Your task to perform on an android device: Is it going to rain tomorrow? Image 0: 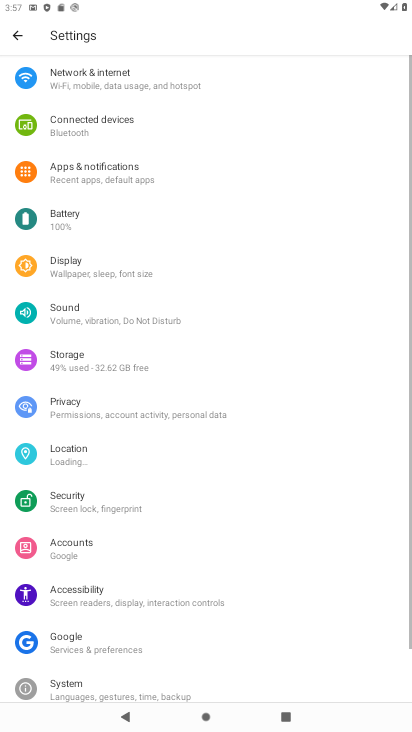
Step 0: press back button
Your task to perform on an android device: Is it going to rain tomorrow? Image 1: 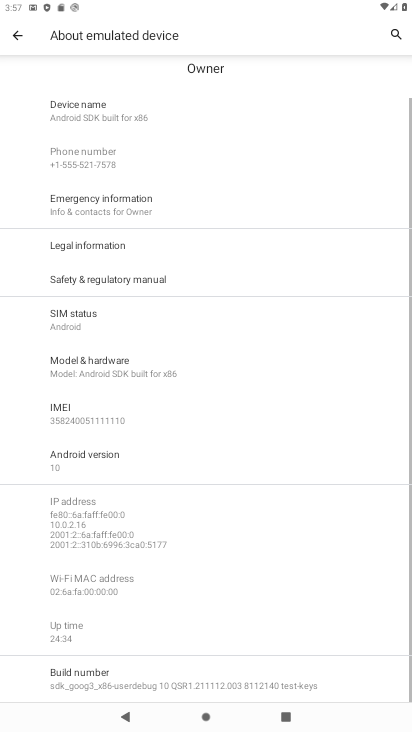
Step 1: click (19, 38)
Your task to perform on an android device: Is it going to rain tomorrow? Image 2: 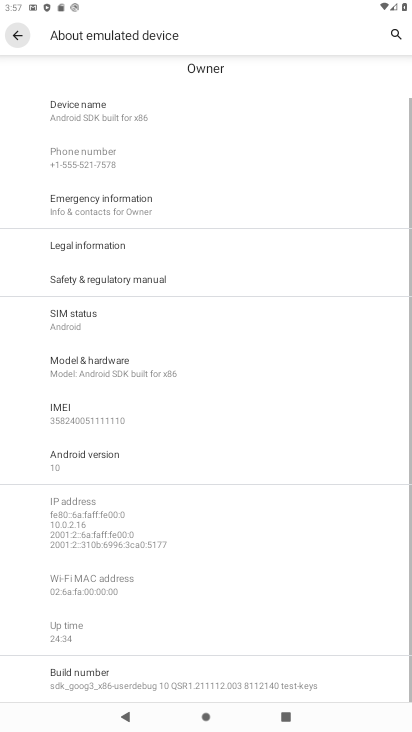
Step 2: click (20, 37)
Your task to perform on an android device: Is it going to rain tomorrow? Image 3: 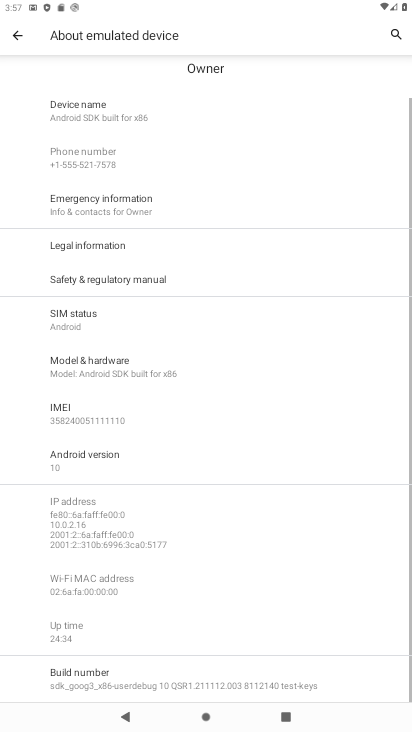
Step 3: click (21, 38)
Your task to perform on an android device: Is it going to rain tomorrow? Image 4: 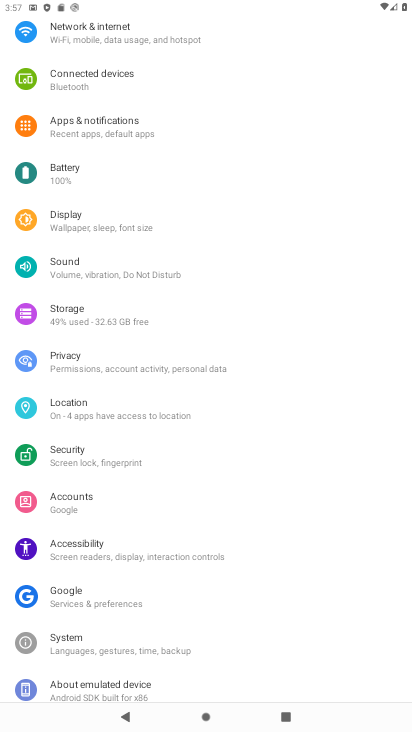
Step 4: click (22, 38)
Your task to perform on an android device: Is it going to rain tomorrow? Image 5: 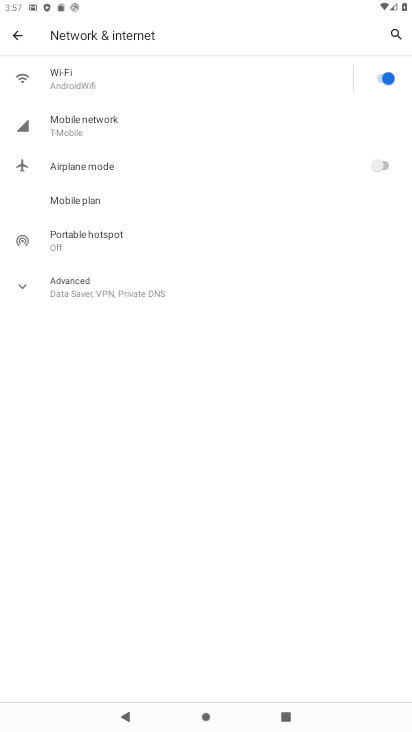
Step 5: press back button
Your task to perform on an android device: Is it going to rain tomorrow? Image 6: 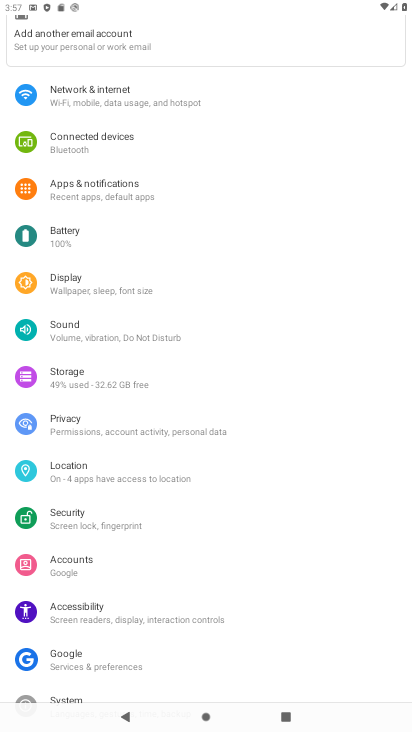
Step 6: press home button
Your task to perform on an android device: Is it going to rain tomorrow? Image 7: 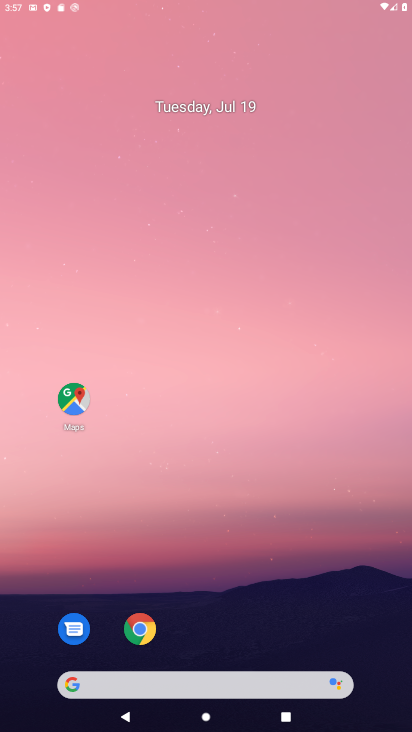
Step 7: press home button
Your task to perform on an android device: Is it going to rain tomorrow? Image 8: 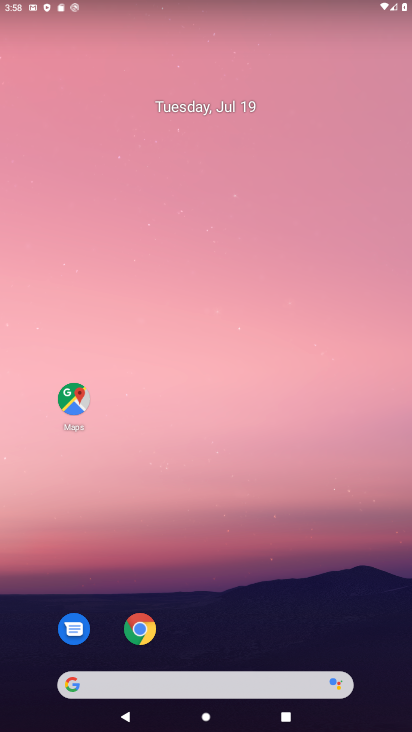
Step 8: drag from (249, 547) to (161, 79)
Your task to perform on an android device: Is it going to rain tomorrow? Image 9: 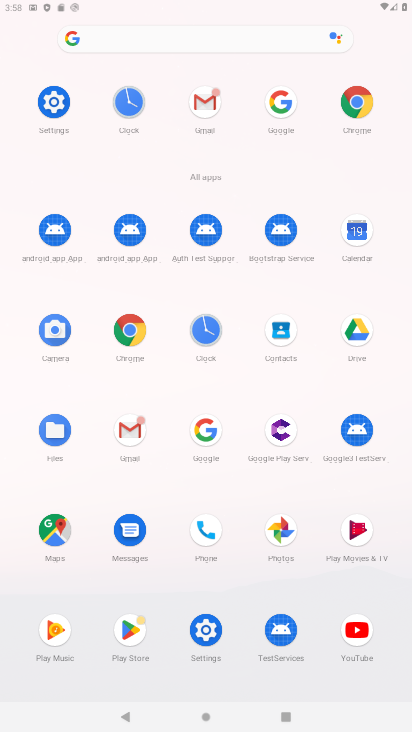
Step 9: drag from (212, 582) to (147, 67)
Your task to perform on an android device: Is it going to rain tomorrow? Image 10: 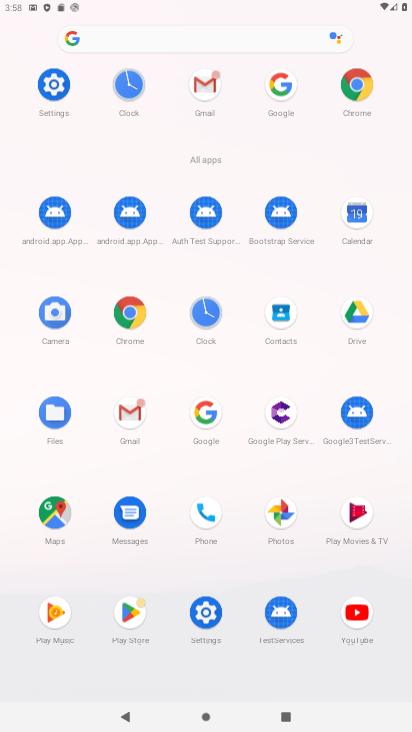
Step 10: drag from (255, 292) to (247, 191)
Your task to perform on an android device: Is it going to rain tomorrow? Image 11: 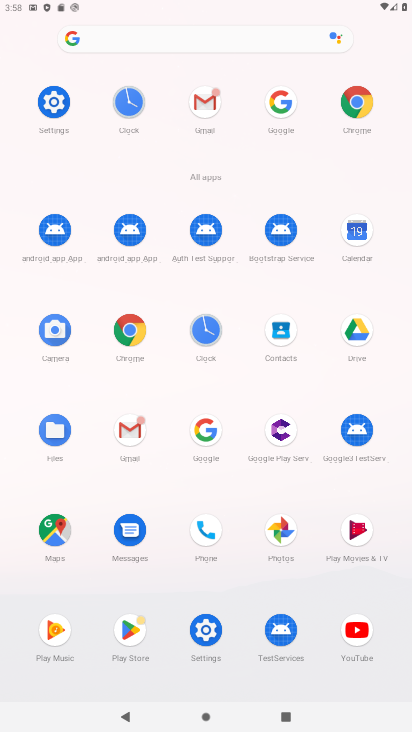
Step 11: click (126, 326)
Your task to perform on an android device: Is it going to rain tomorrow? Image 12: 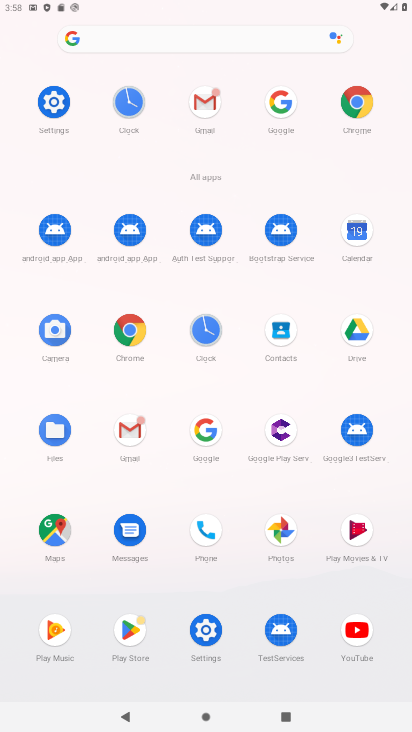
Step 12: click (130, 328)
Your task to perform on an android device: Is it going to rain tomorrow? Image 13: 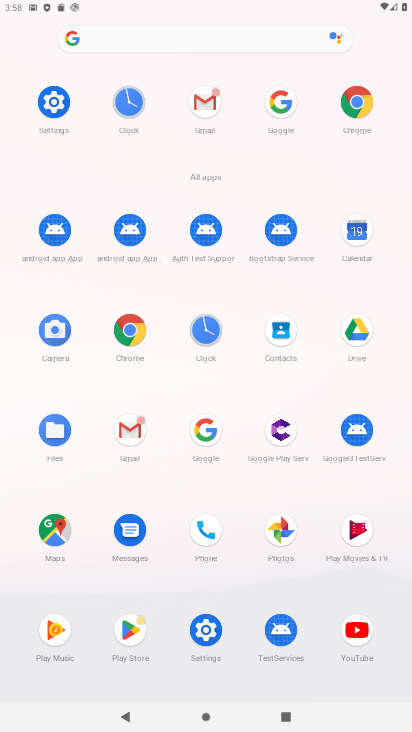
Step 13: click (138, 325)
Your task to perform on an android device: Is it going to rain tomorrow? Image 14: 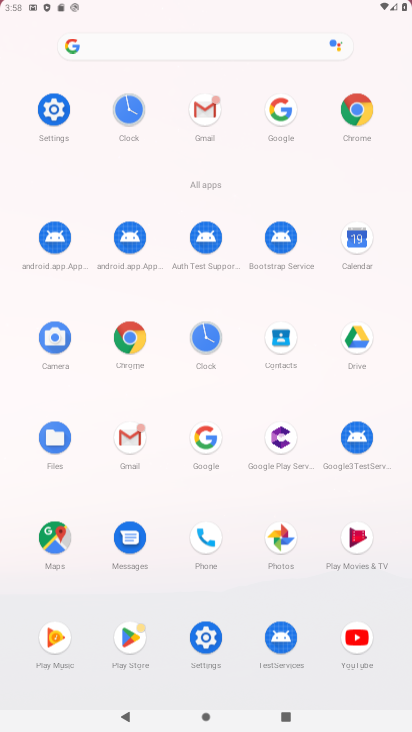
Step 14: click (141, 329)
Your task to perform on an android device: Is it going to rain tomorrow? Image 15: 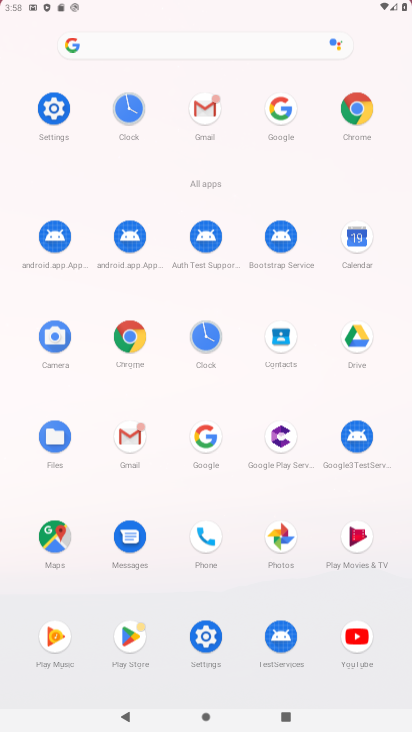
Step 15: click (139, 332)
Your task to perform on an android device: Is it going to rain tomorrow? Image 16: 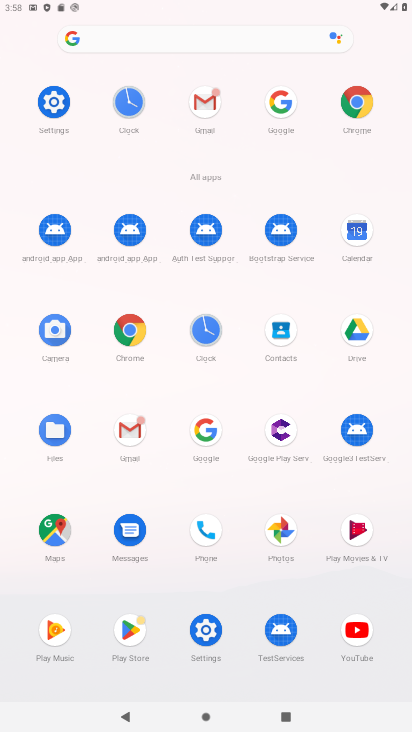
Step 16: click (139, 332)
Your task to perform on an android device: Is it going to rain tomorrow? Image 17: 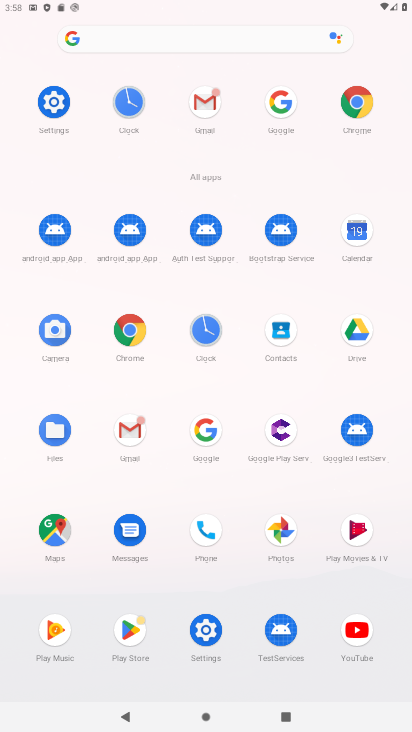
Step 17: click (138, 330)
Your task to perform on an android device: Is it going to rain tomorrow? Image 18: 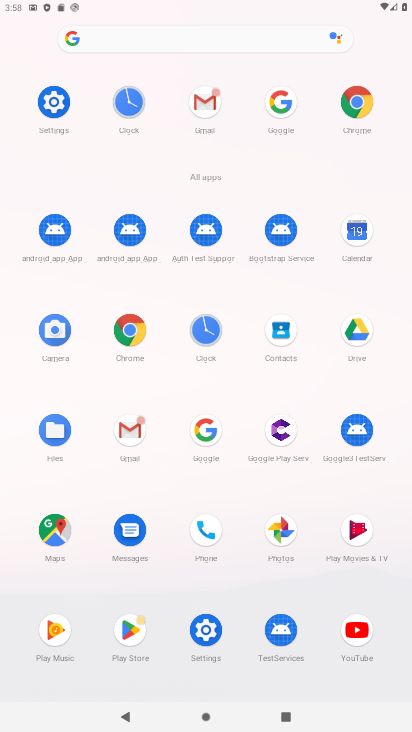
Step 18: click (138, 330)
Your task to perform on an android device: Is it going to rain tomorrow? Image 19: 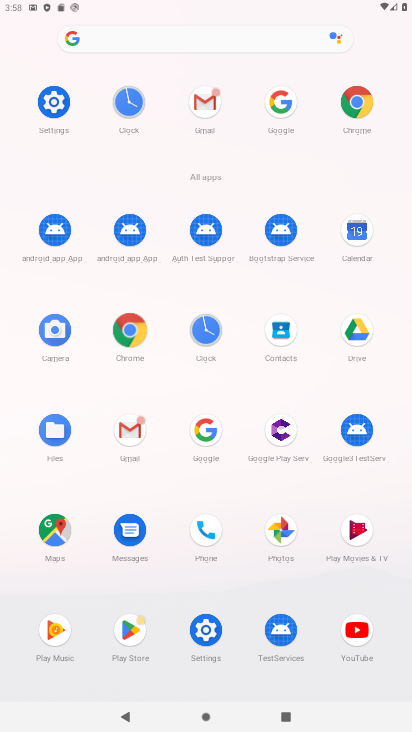
Step 19: click (138, 333)
Your task to perform on an android device: Is it going to rain tomorrow? Image 20: 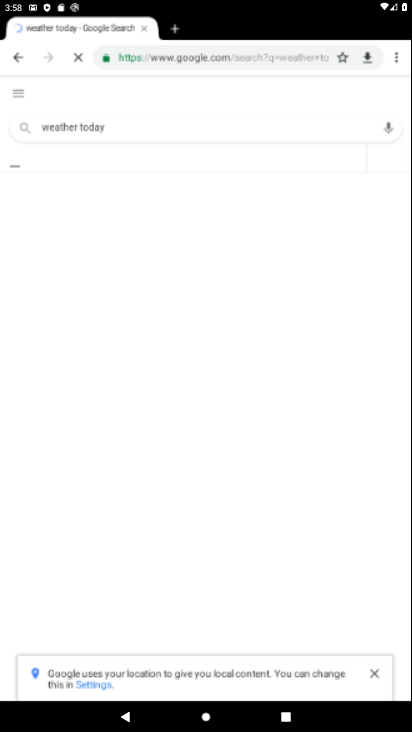
Step 20: click (130, 328)
Your task to perform on an android device: Is it going to rain tomorrow? Image 21: 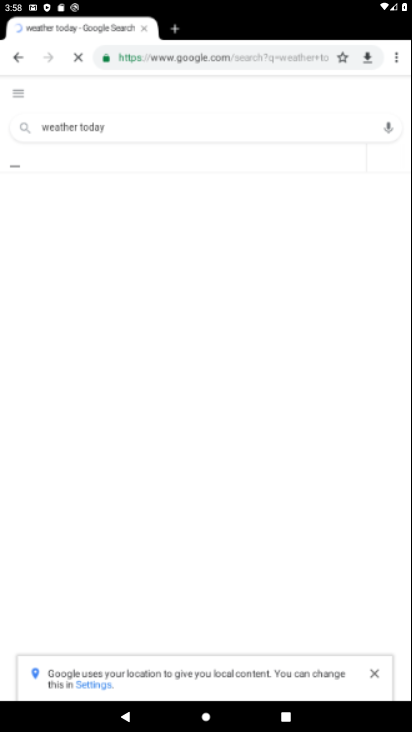
Step 21: click (131, 327)
Your task to perform on an android device: Is it going to rain tomorrow? Image 22: 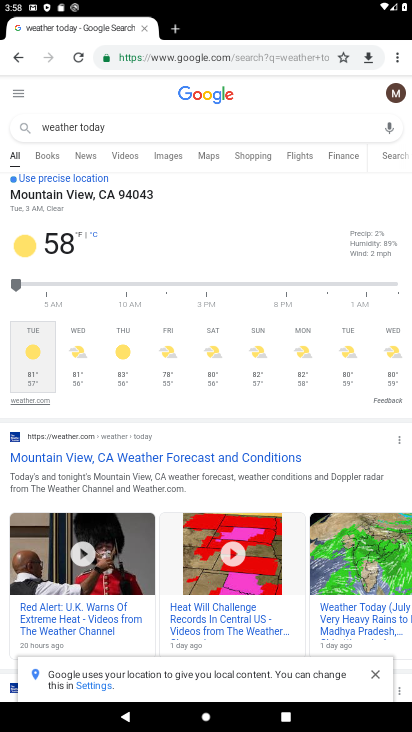
Step 22: click (250, 157)
Your task to perform on an android device: Is it going to rain tomorrow? Image 23: 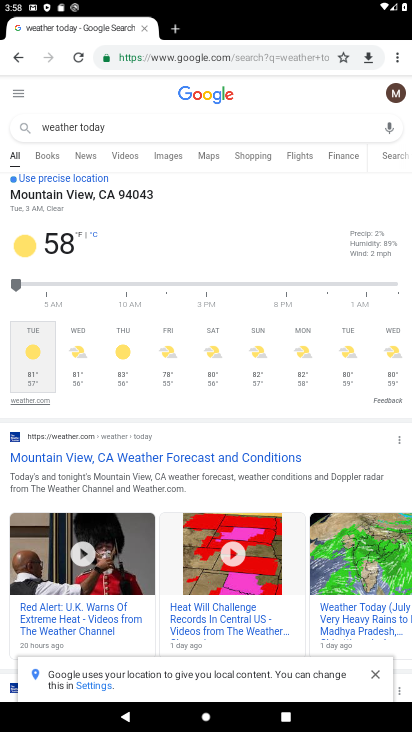
Step 23: click (250, 157)
Your task to perform on an android device: Is it going to rain tomorrow? Image 24: 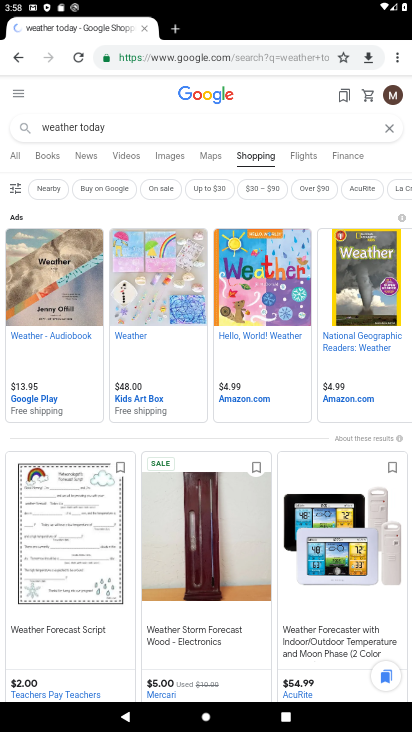
Step 24: click (9, 158)
Your task to perform on an android device: Is it going to rain tomorrow? Image 25: 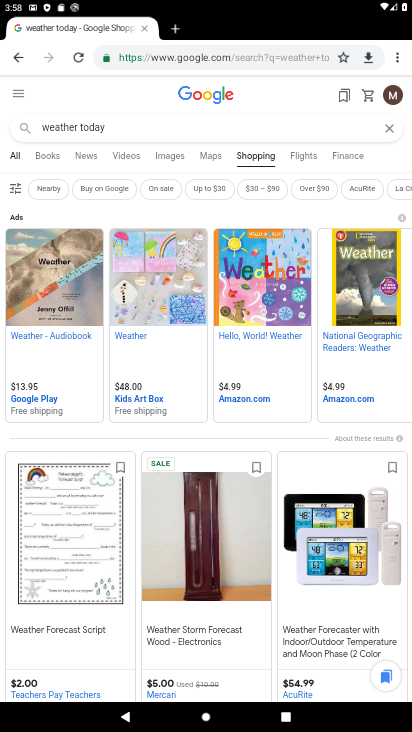
Step 25: click (9, 158)
Your task to perform on an android device: Is it going to rain tomorrow? Image 26: 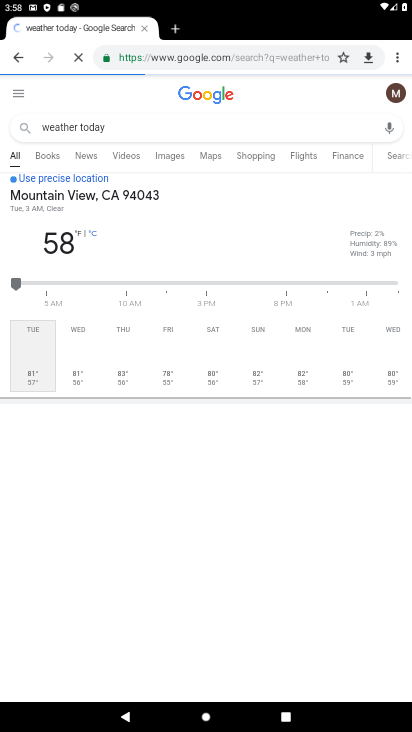
Step 26: click (8, 157)
Your task to perform on an android device: Is it going to rain tomorrow? Image 27: 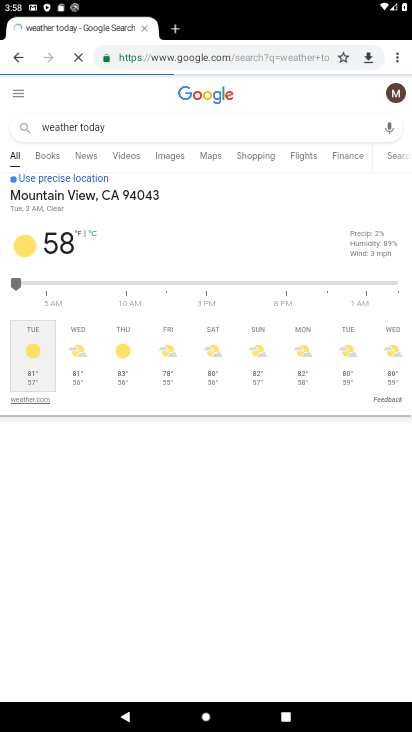
Step 27: click (9, 156)
Your task to perform on an android device: Is it going to rain tomorrow? Image 28: 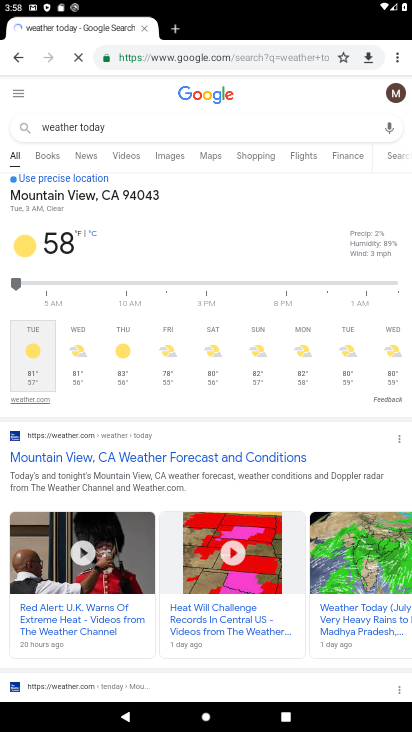
Step 28: task complete